Your task to perform on an android device: When is my next meeting? Image 0: 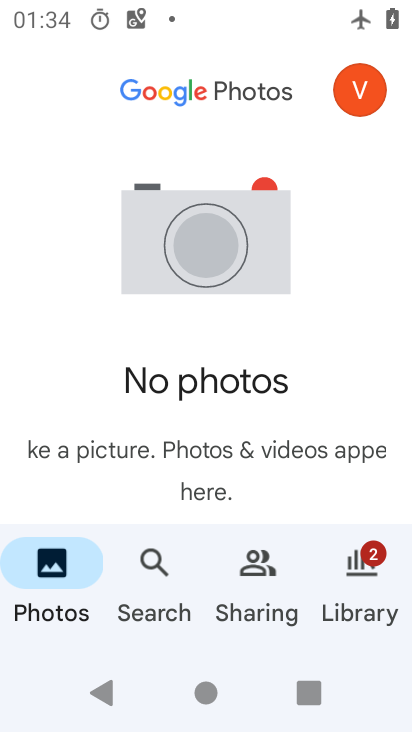
Step 0: press home button
Your task to perform on an android device: When is my next meeting? Image 1: 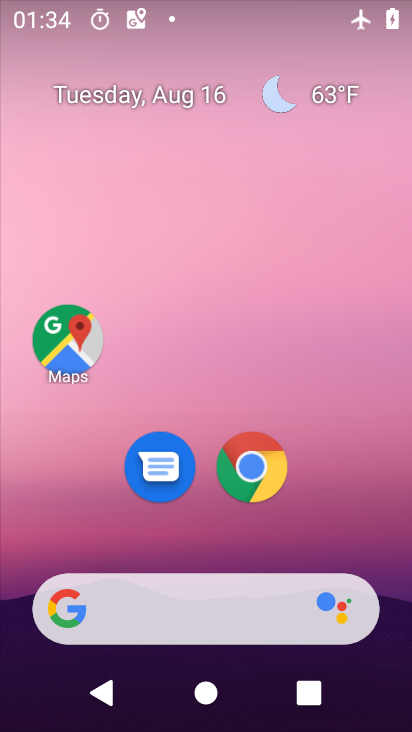
Step 1: drag from (329, 541) to (355, 132)
Your task to perform on an android device: When is my next meeting? Image 2: 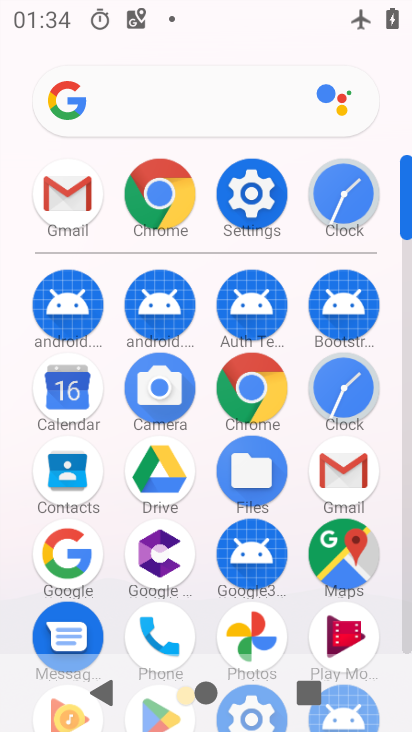
Step 2: click (54, 403)
Your task to perform on an android device: When is my next meeting? Image 3: 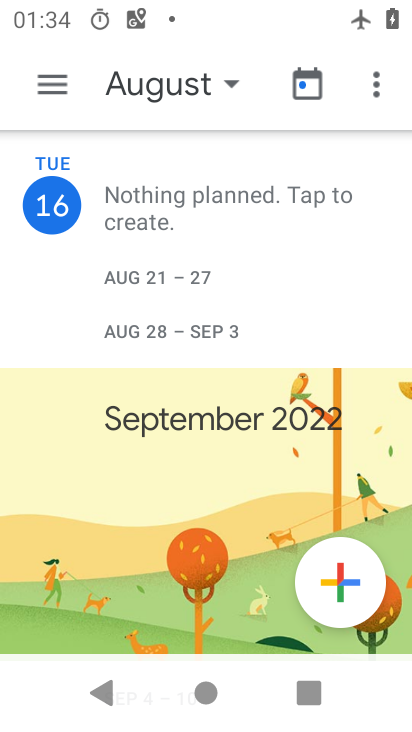
Step 3: task complete